Your task to perform on an android device: check battery use Image 0: 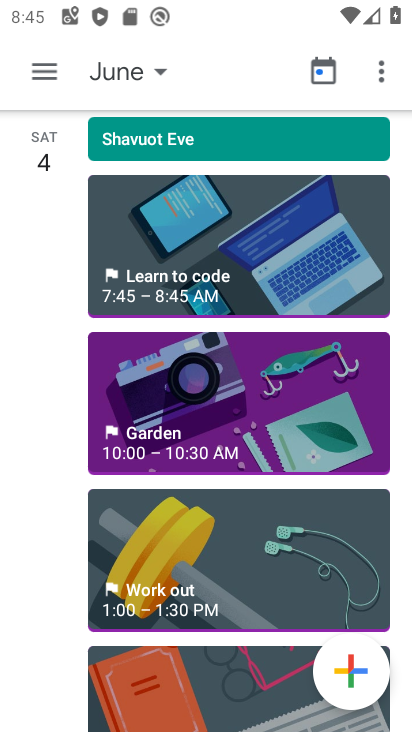
Step 0: press home button
Your task to perform on an android device: check battery use Image 1: 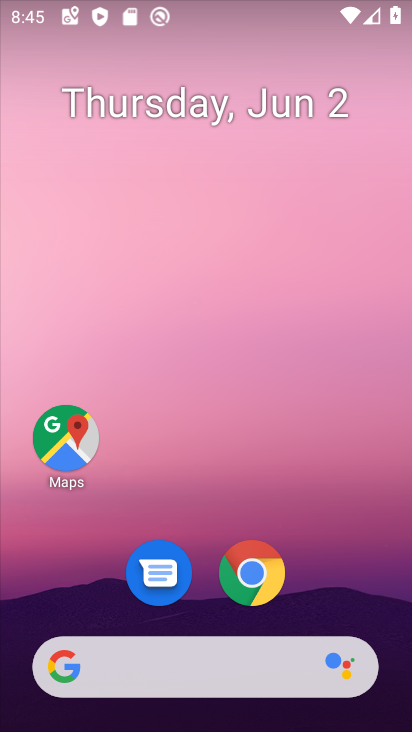
Step 1: drag from (362, 568) to (249, 5)
Your task to perform on an android device: check battery use Image 2: 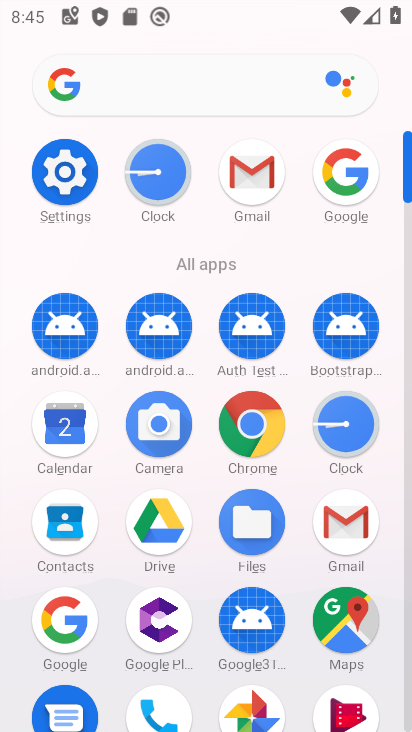
Step 2: click (76, 164)
Your task to perform on an android device: check battery use Image 3: 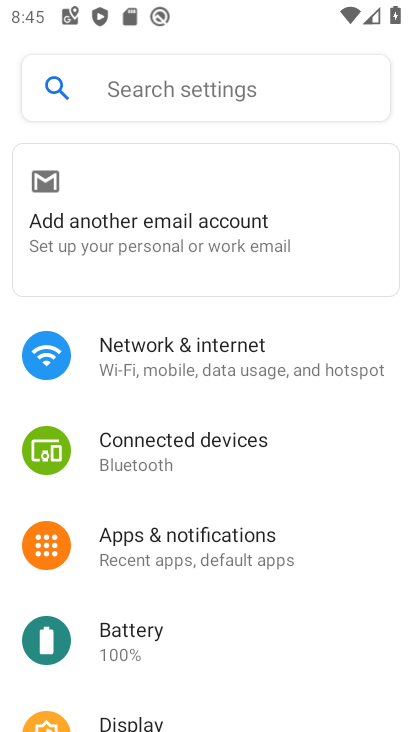
Step 3: click (121, 612)
Your task to perform on an android device: check battery use Image 4: 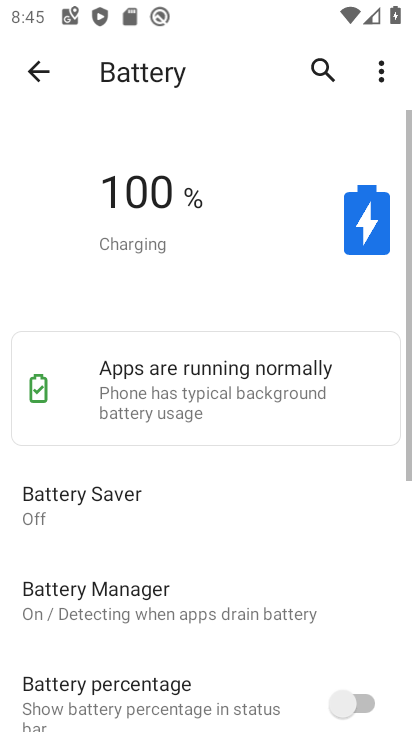
Step 4: task complete